Your task to perform on an android device: uninstall "Facebook" Image 0: 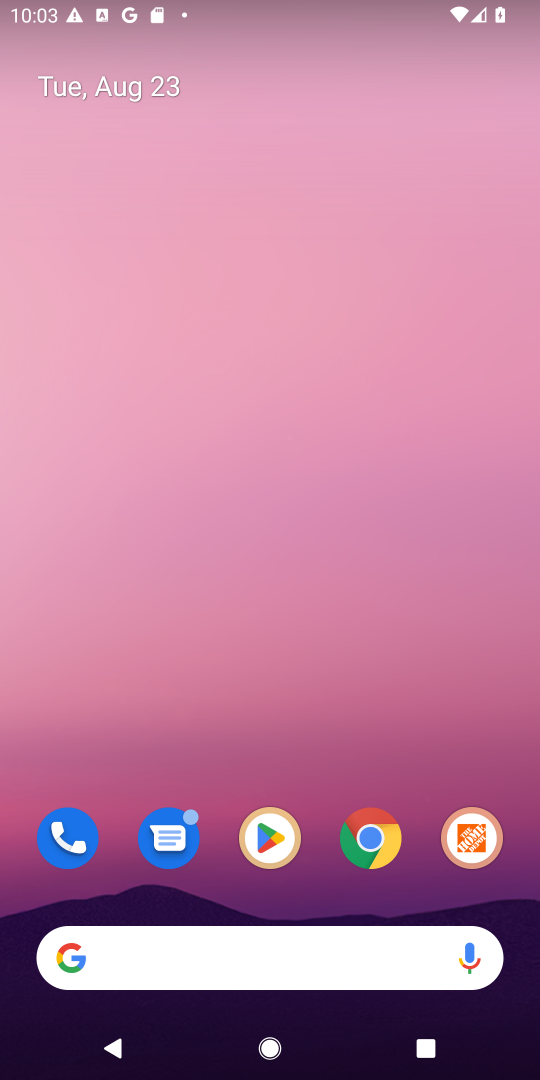
Step 0: click (280, 848)
Your task to perform on an android device: uninstall "Facebook" Image 1: 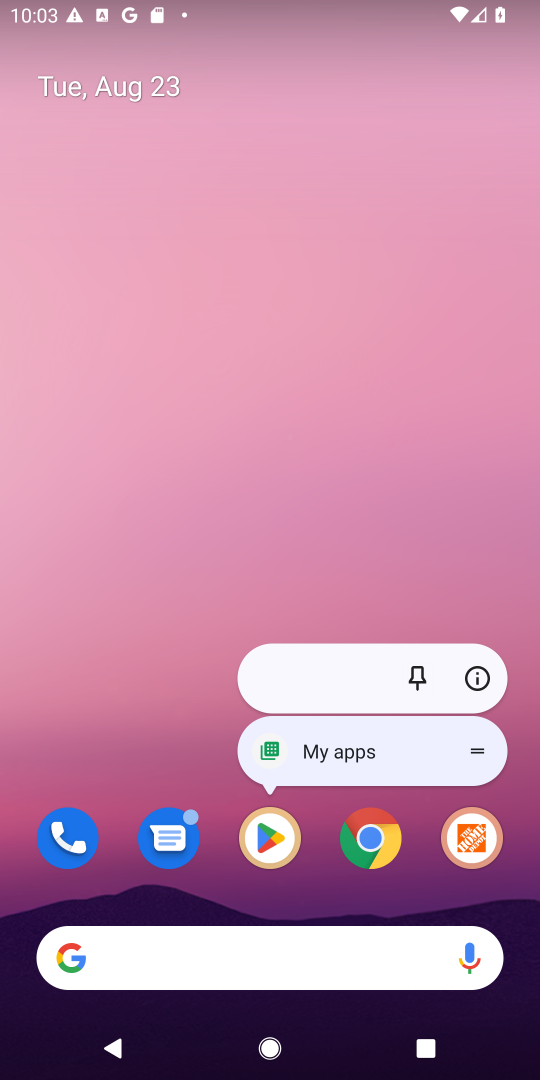
Step 1: click (281, 847)
Your task to perform on an android device: uninstall "Facebook" Image 2: 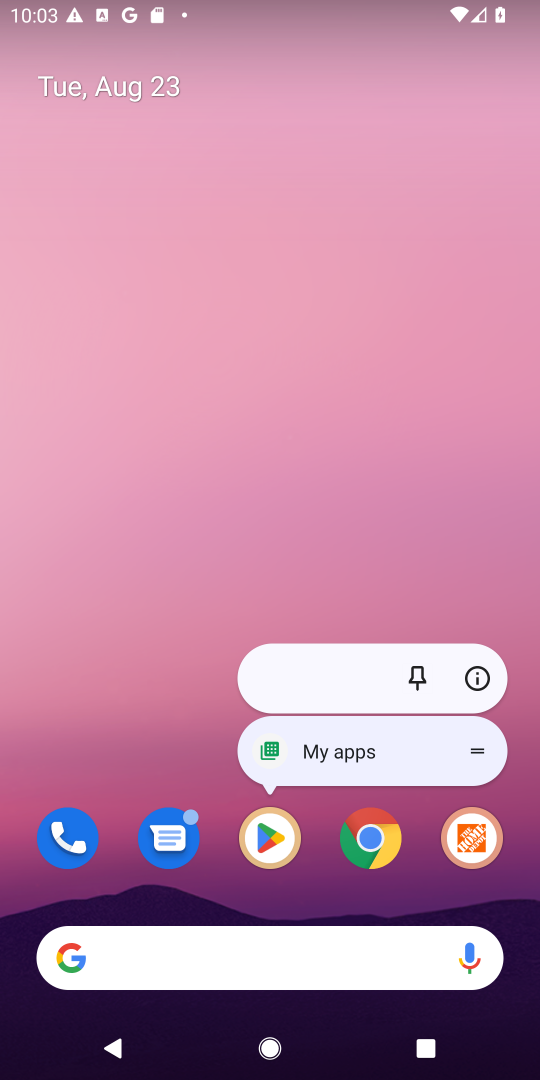
Step 2: click (281, 847)
Your task to perform on an android device: uninstall "Facebook" Image 3: 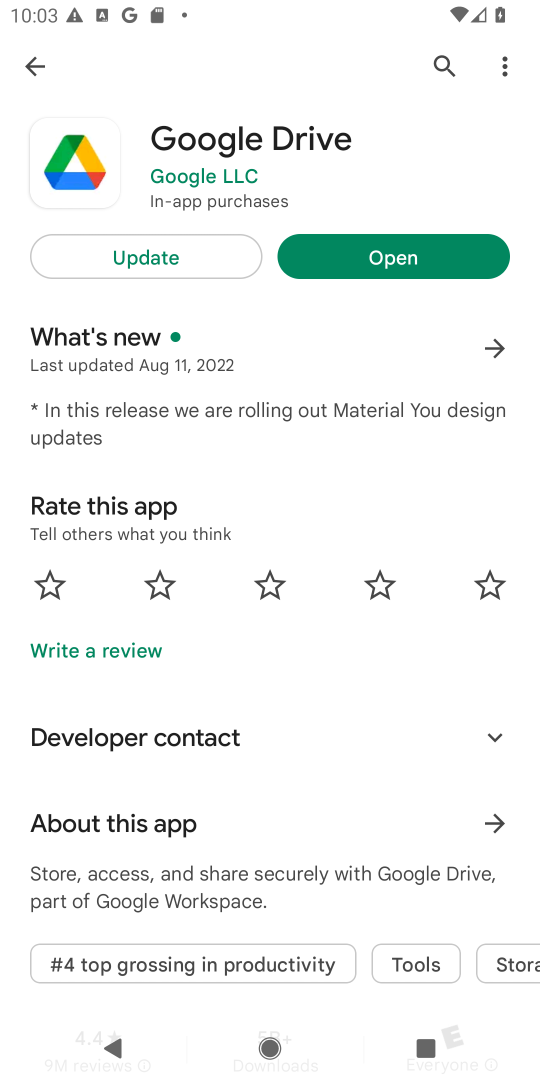
Step 3: click (440, 69)
Your task to perform on an android device: uninstall "Facebook" Image 4: 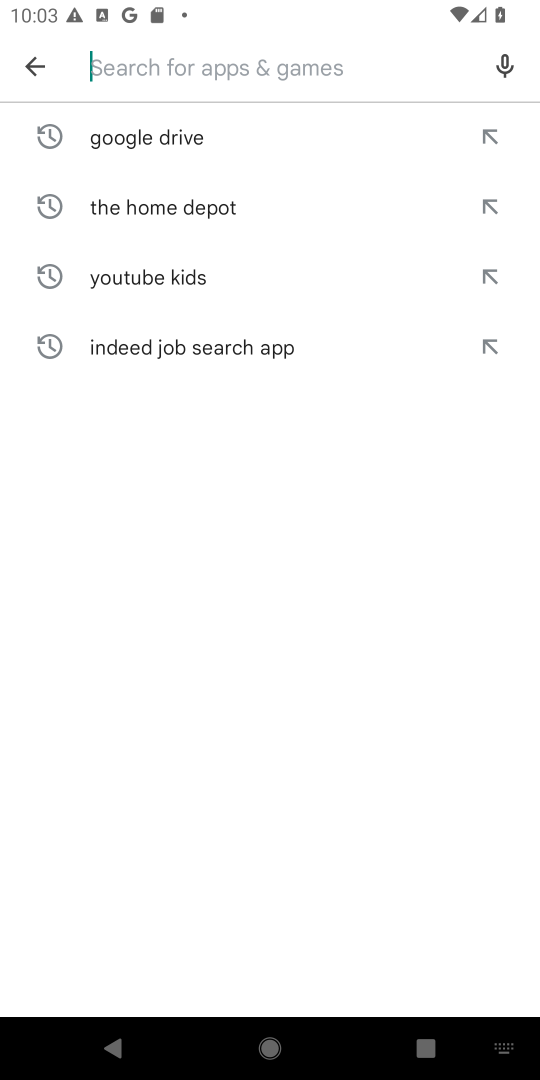
Step 4: type "Facebook"
Your task to perform on an android device: uninstall "Facebook" Image 5: 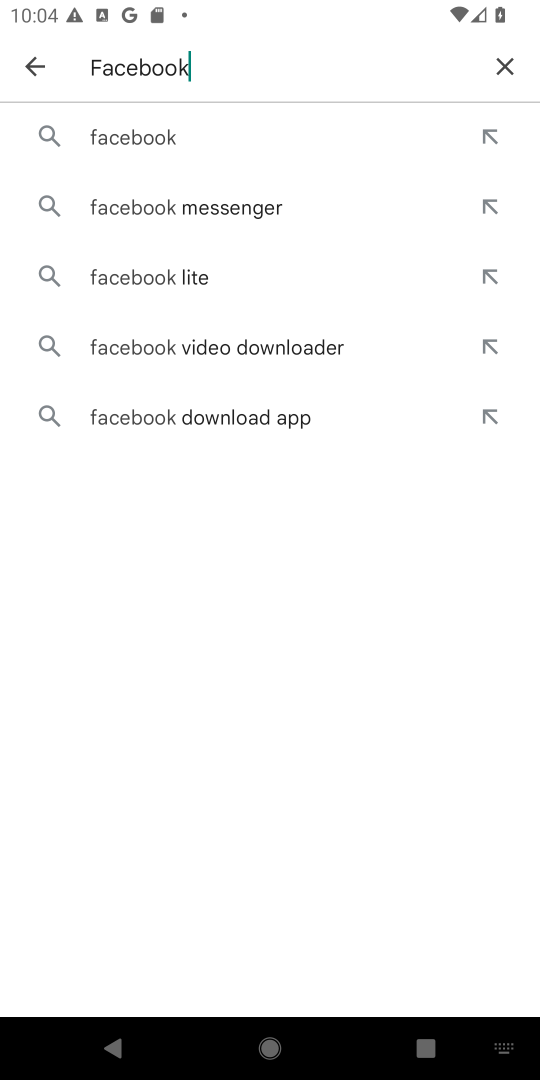
Step 5: click (98, 138)
Your task to perform on an android device: uninstall "Facebook" Image 6: 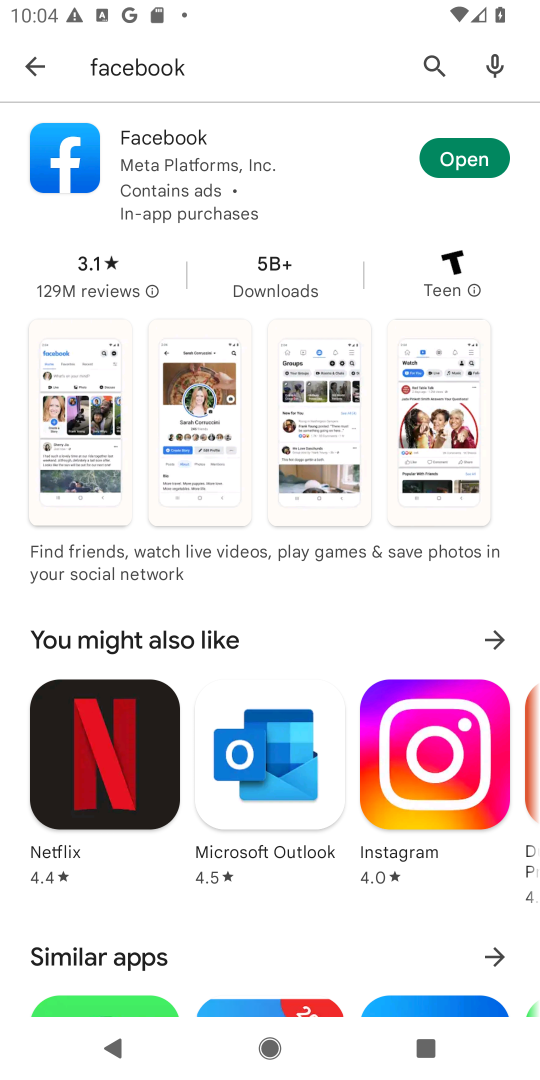
Step 6: click (259, 180)
Your task to perform on an android device: uninstall "Facebook" Image 7: 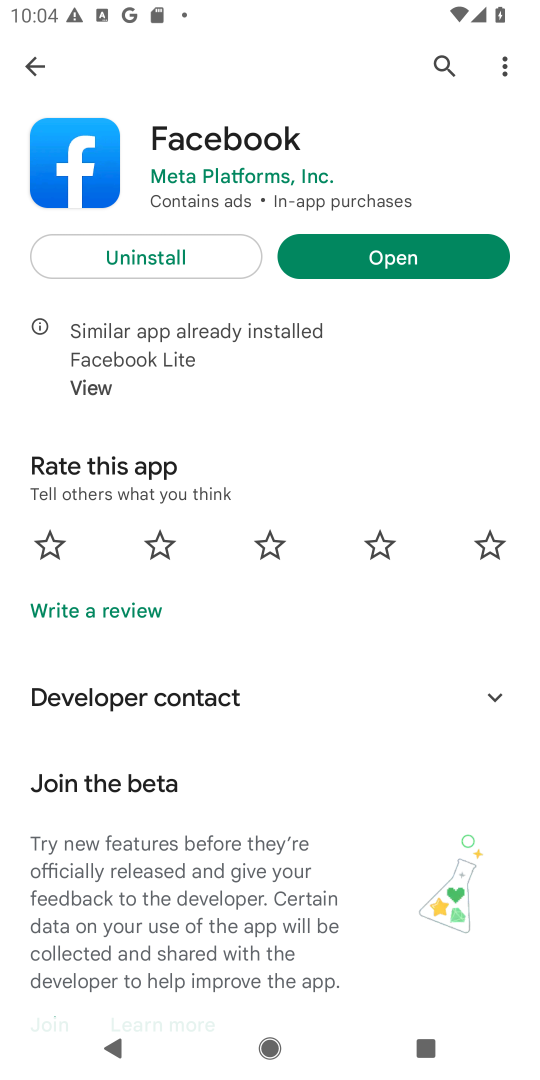
Step 7: click (215, 247)
Your task to perform on an android device: uninstall "Facebook" Image 8: 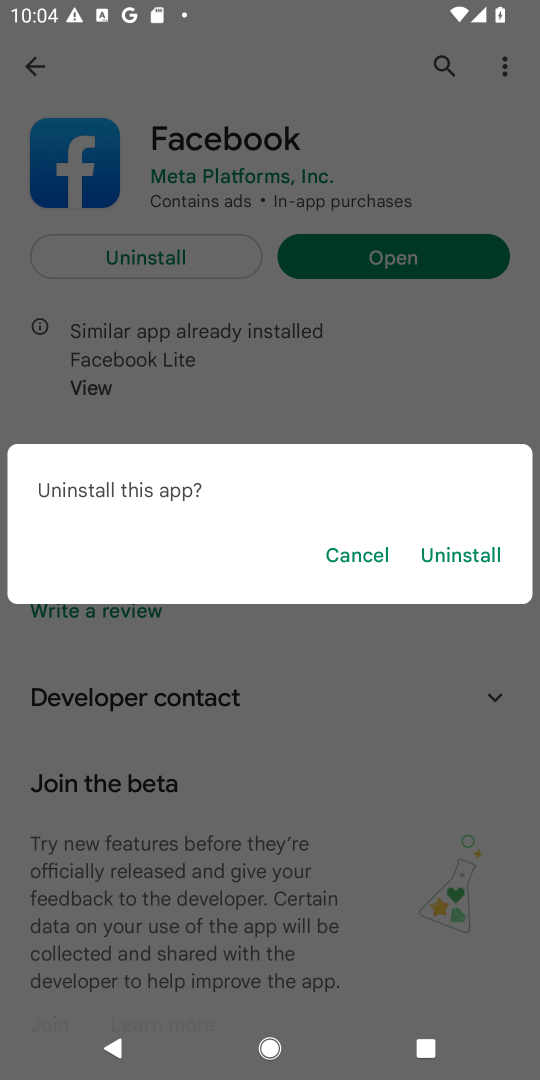
Step 8: click (454, 559)
Your task to perform on an android device: uninstall "Facebook" Image 9: 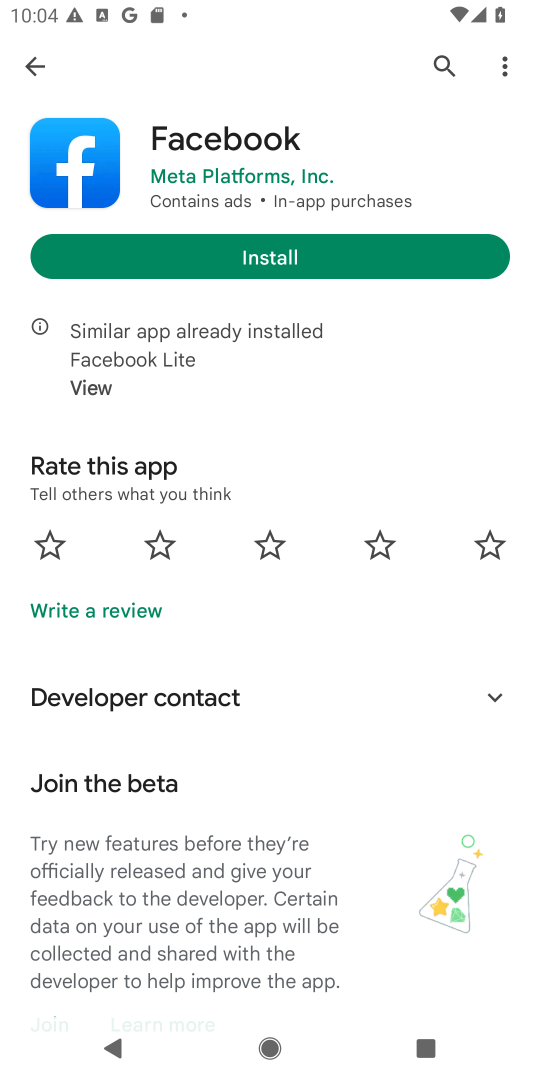
Step 9: task complete